Your task to perform on an android device: Go to eBay Image 0: 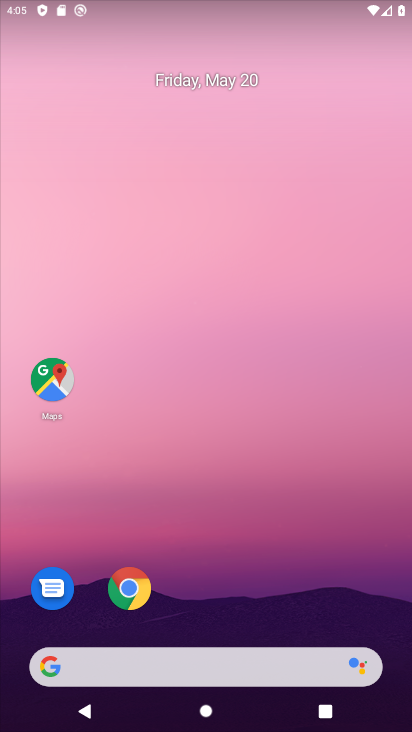
Step 0: drag from (264, 588) to (253, 95)
Your task to perform on an android device: Go to eBay Image 1: 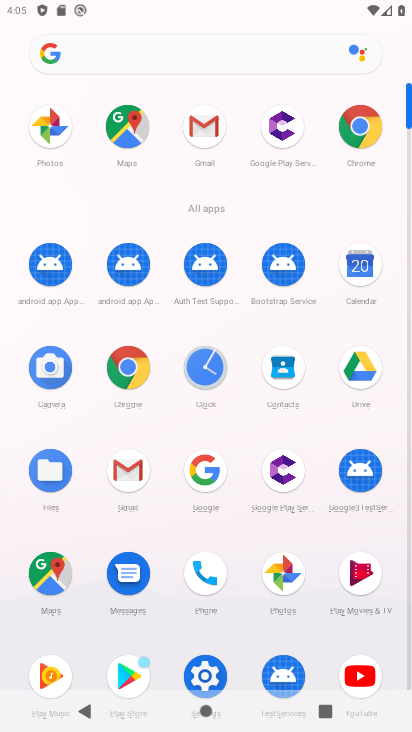
Step 1: click (120, 368)
Your task to perform on an android device: Go to eBay Image 2: 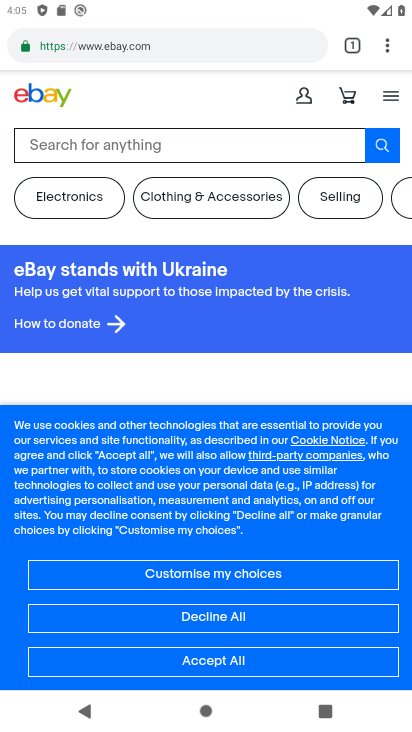
Step 2: click (145, 46)
Your task to perform on an android device: Go to eBay Image 3: 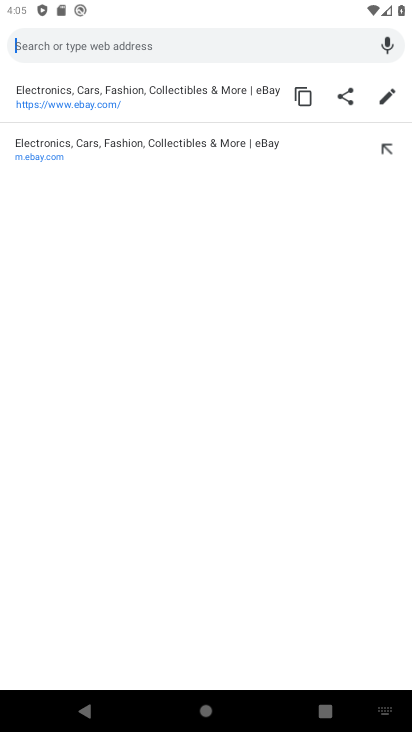
Step 3: type " eBay"
Your task to perform on an android device: Go to eBay Image 4: 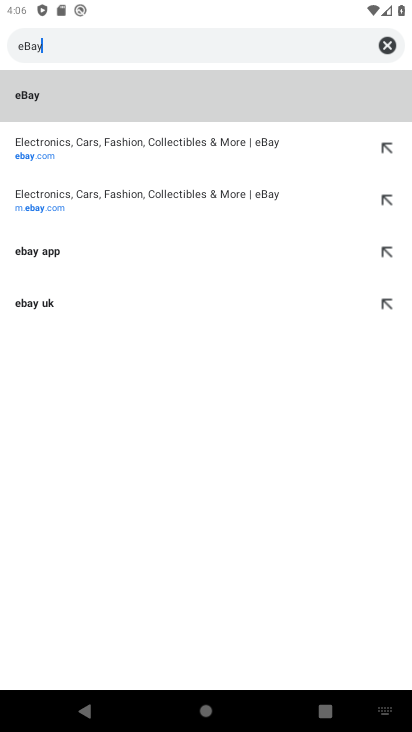
Step 4: click (26, 158)
Your task to perform on an android device: Go to eBay Image 5: 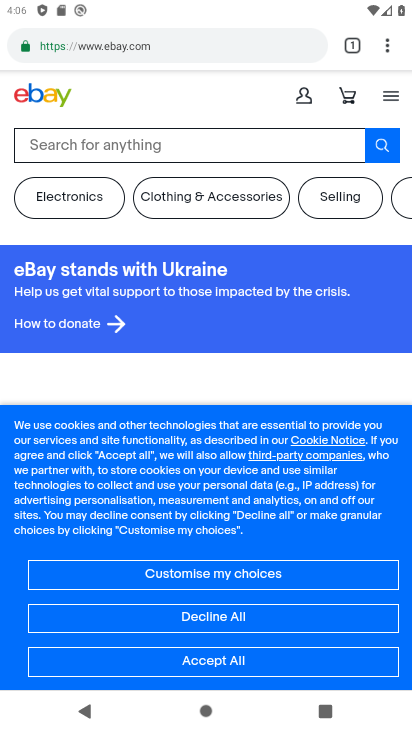
Step 5: task complete